Your task to perform on an android device: Open Youtube and go to the subscriptions tab Image 0: 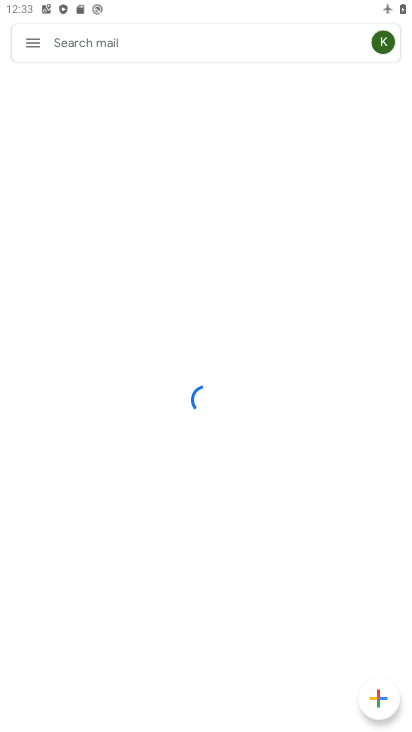
Step 0: press home button
Your task to perform on an android device: Open Youtube and go to the subscriptions tab Image 1: 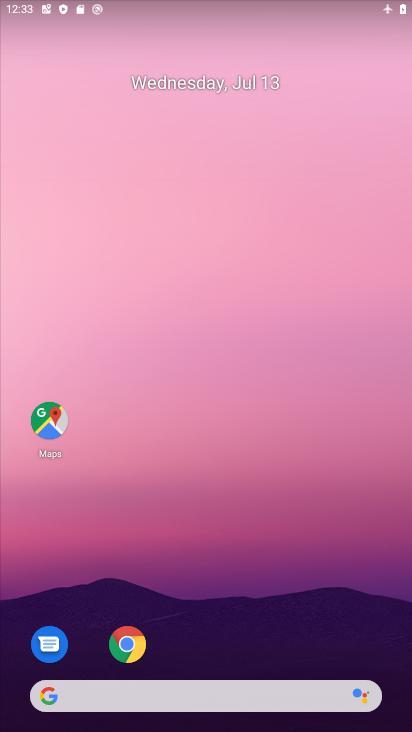
Step 1: drag from (317, 629) to (298, 142)
Your task to perform on an android device: Open Youtube and go to the subscriptions tab Image 2: 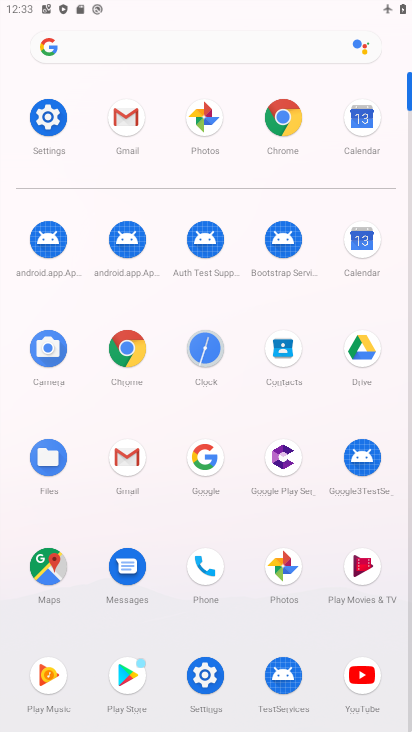
Step 2: click (372, 674)
Your task to perform on an android device: Open Youtube and go to the subscriptions tab Image 3: 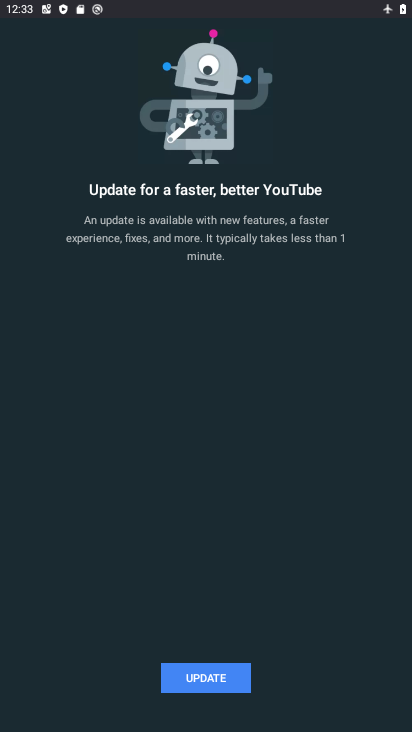
Step 3: task complete